Your task to perform on an android device: What is the news today? Image 0: 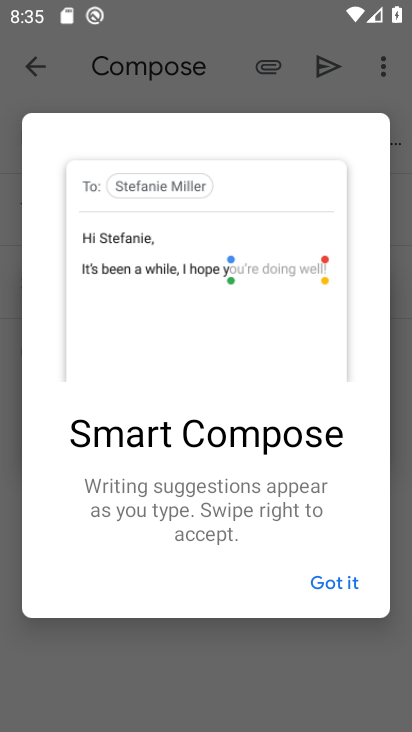
Step 0: press home button
Your task to perform on an android device: What is the news today? Image 1: 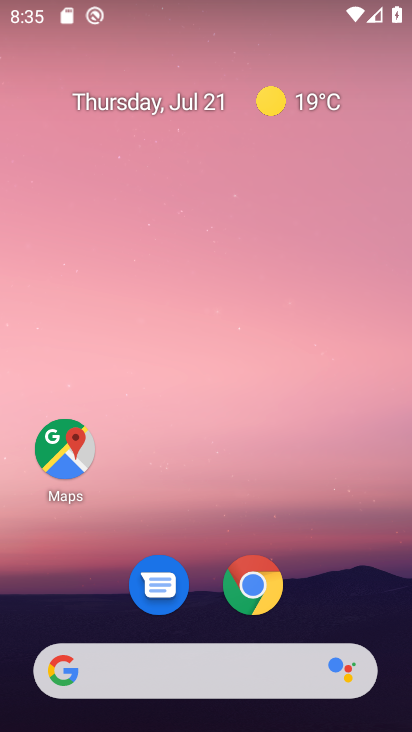
Step 1: click (242, 677)
Your task to perform on an android device: What is the news today? Image 2: 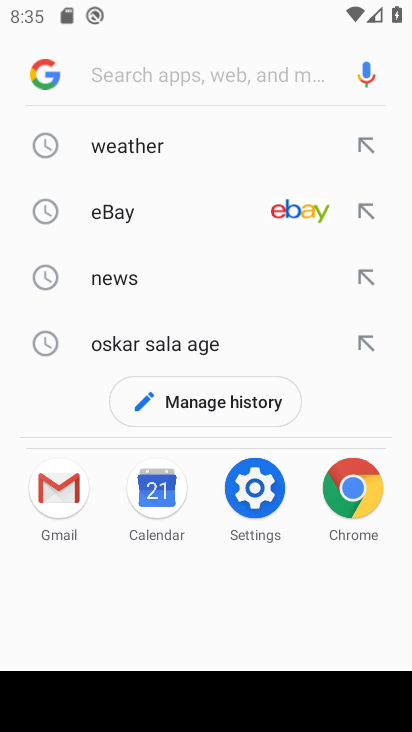
Step 2: click (119, 275)
Your task to perform on an android device: What is the news today? Image 3: 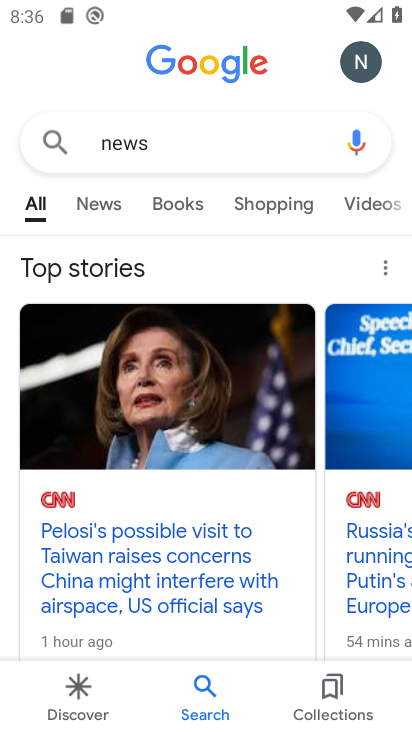
Step 3: drag from (181, 490) to (204, 151)
Your task to perform on an android device: What is the news today? Image 4: 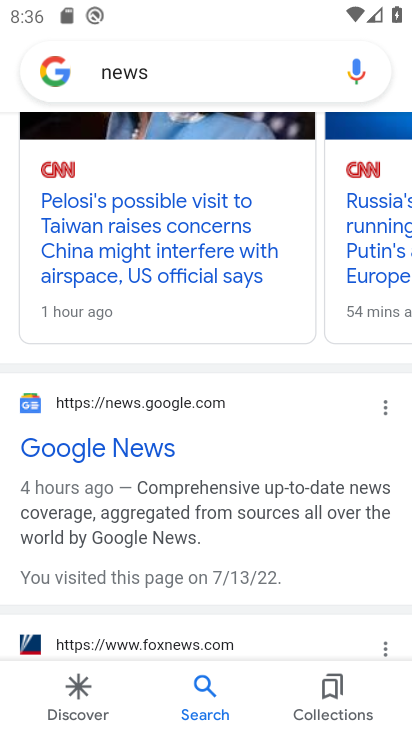
Step 4: drag from (200, 186) to (220, 563)
Your task to perform on an android device: What is the news today? Image 5: 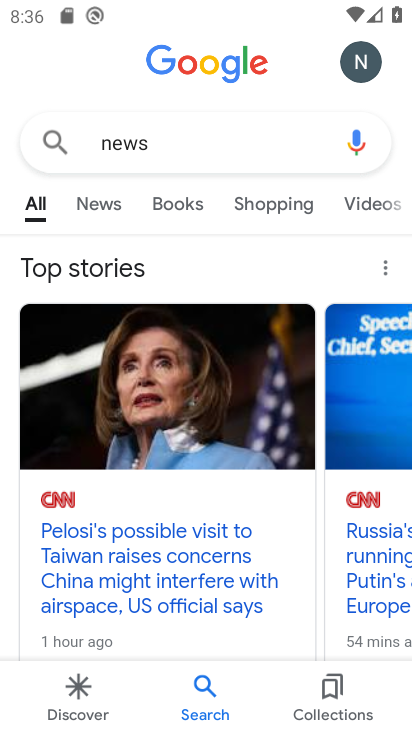
Step 5: click (106, 200)
Your task to perform on an android device: What is the news today? Image 6: 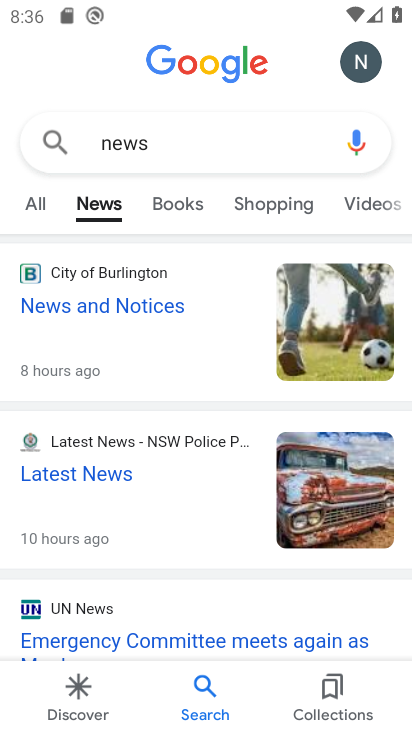
Step 6: task complete